Your task to perform on an android device: choose inbox layout in the gmail app Image 0: 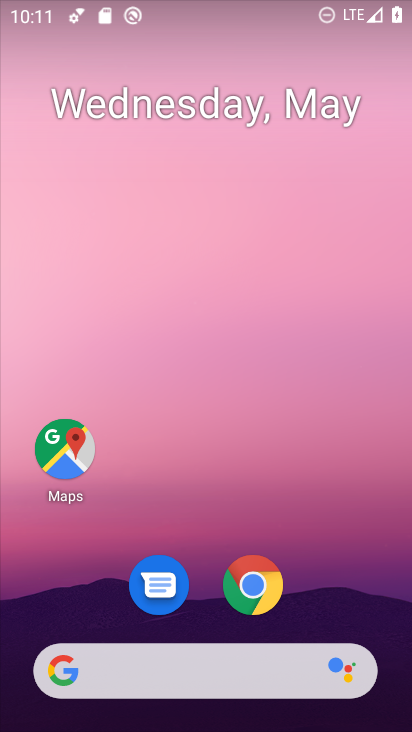
Step 0: drag from (298, 509) to (300, 70)
Your task to perform on an android device: choose inbox layout in the gmail app Image 1: 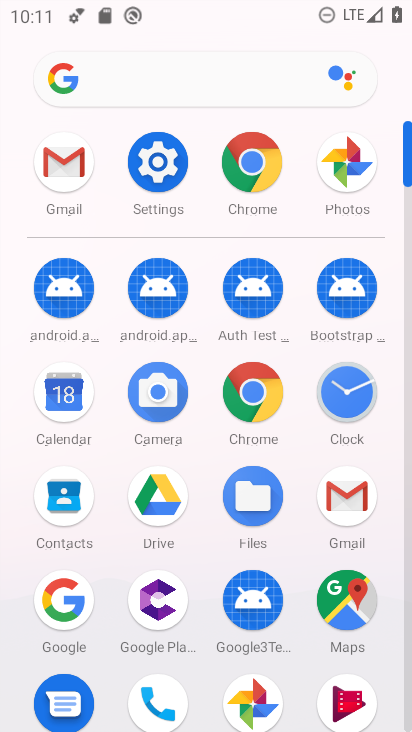
Step 1: click (161, 164)
Your task to perform on an android device: choose inbox layout in the gmail app Image 2: 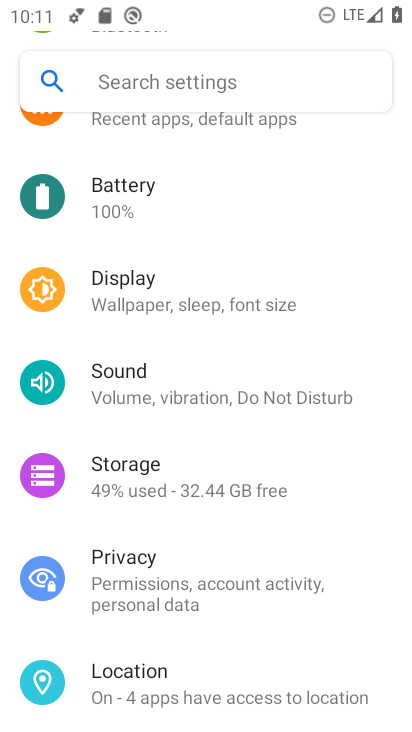
Step 2: drag from (214, 635) to (190, 114)
Your task to perform on an android device: choose inbox layout in the gmail app Image 3: 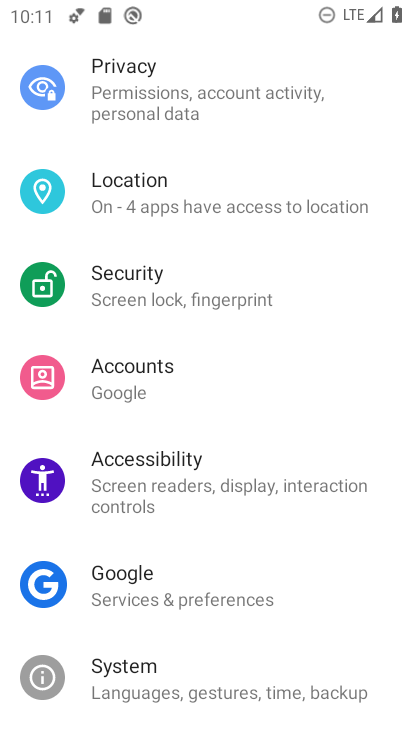
Step 3: drag from (194, 557) to (204, 264)
Your task to perform on an android device: choose inbox layout in the gmail app Image 4: 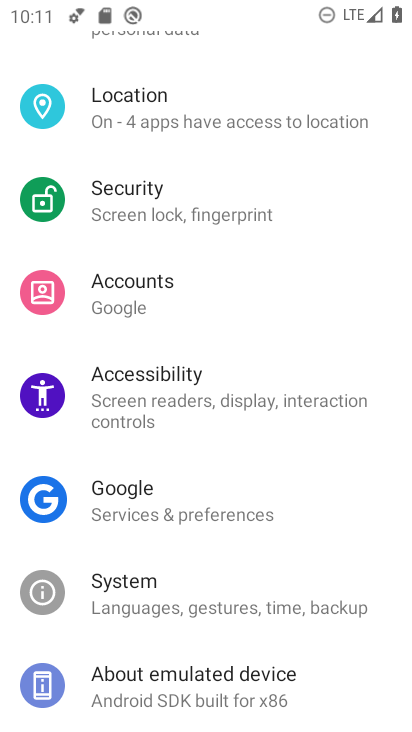
Step 4: press home button
Your task to perform on an android device: choose inbox layout in the gmail app Image 5: 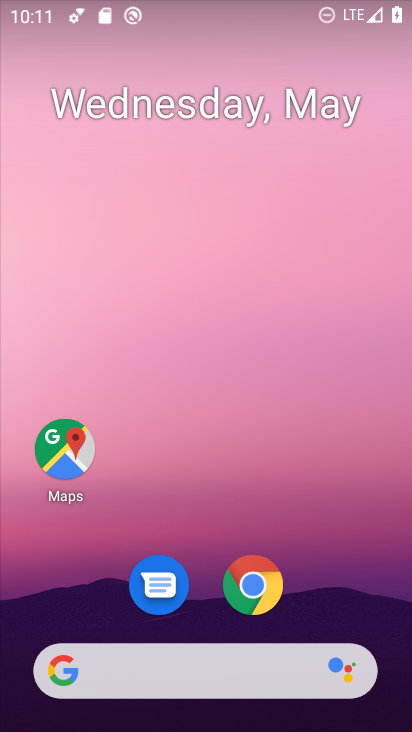
Step 5: drag from (306, 534) to (329, 90)
Your task to perform on an android device: choose inbox layout in the gmail app Image 6: 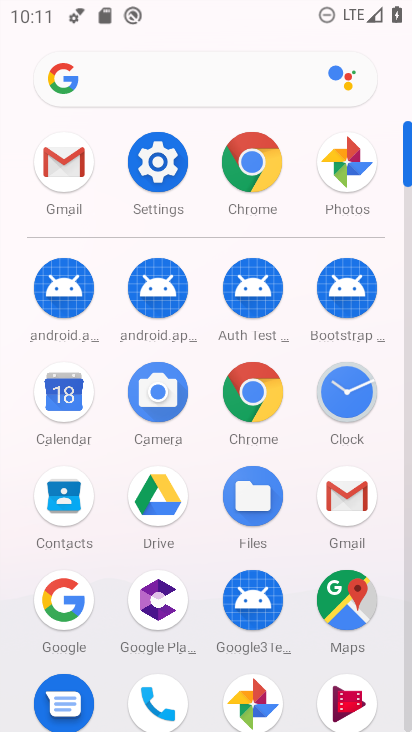
Step 6: click (340, 497)
Your task to perform on an android device: choose inbox layout in the gmail app Image 7: 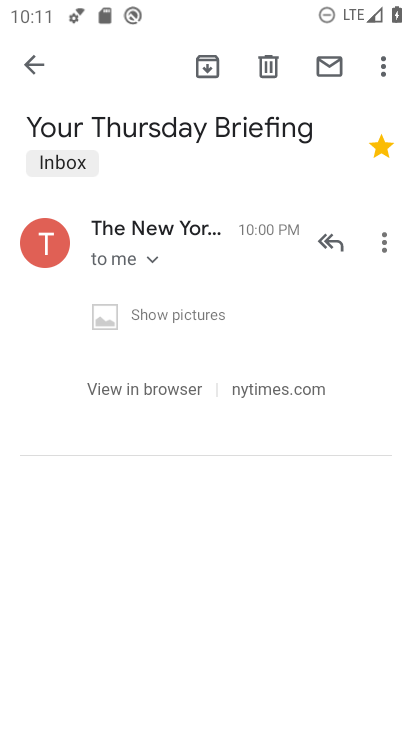
Step 7: click (27, 65)
Your task to perform on an android device: choose inbox layout in the gmail app Image 8: 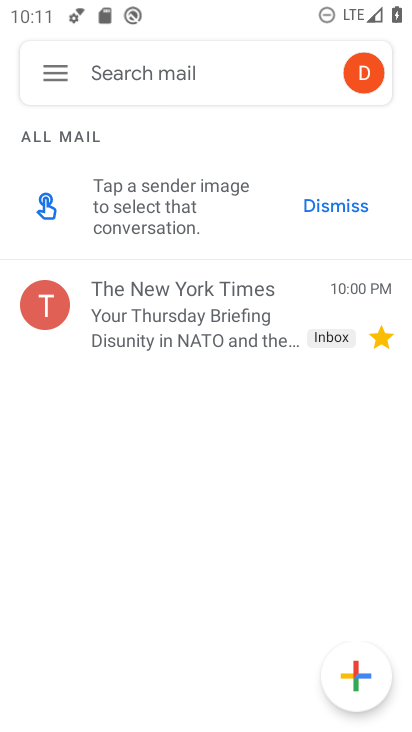
Step 8: click (58, 71)
Your task to perform on an android device: choose inbox layout in the gmail app Image 9: 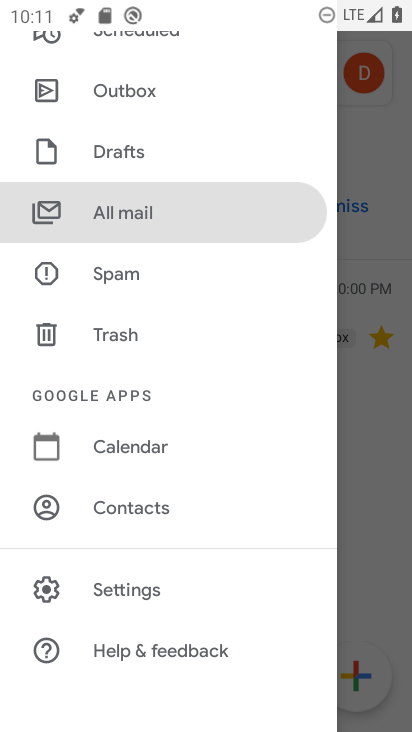
Step 9: click (171, 588)
Your task to perform on an android device: choose inbox layout in the gmail app Image 10: 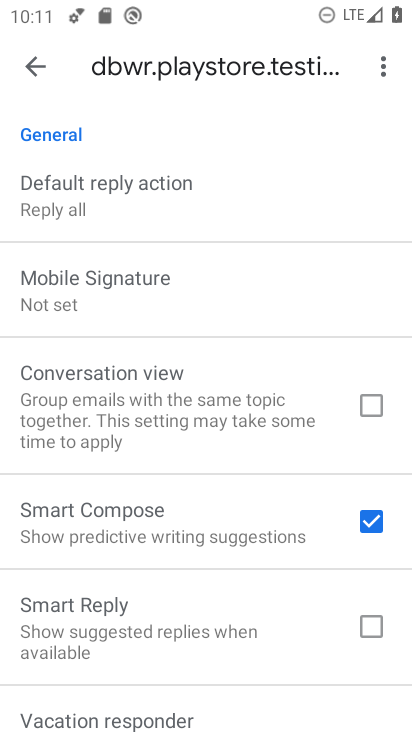
Step 10: drag from (192, 478) to (232, 541)
Your task to perform on an android device: choose inbox layout in the gmail app Image 11: 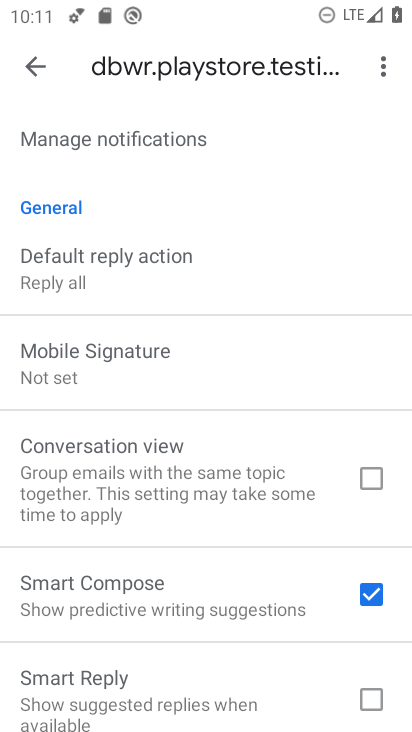
Step 11: drag from (193, 239) to (184, 571)
Your task to perform on an android device: choose inbox layout in the gmail app Image 12: 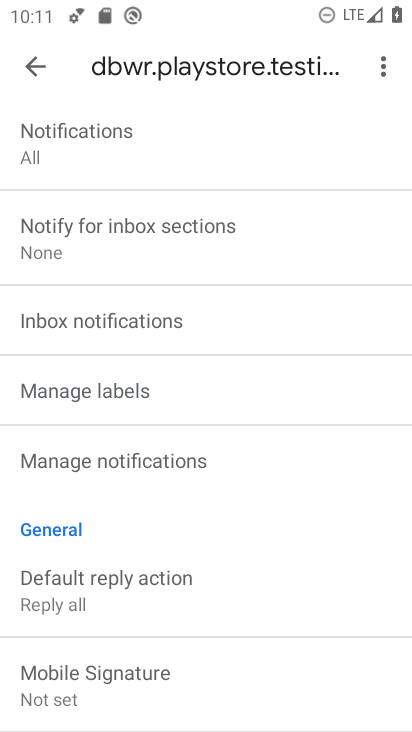
Step 12: drag from (187, 207) to (170, 554)
Your task to perform on an android device: choose inbox layout in the gmail app Image 13: 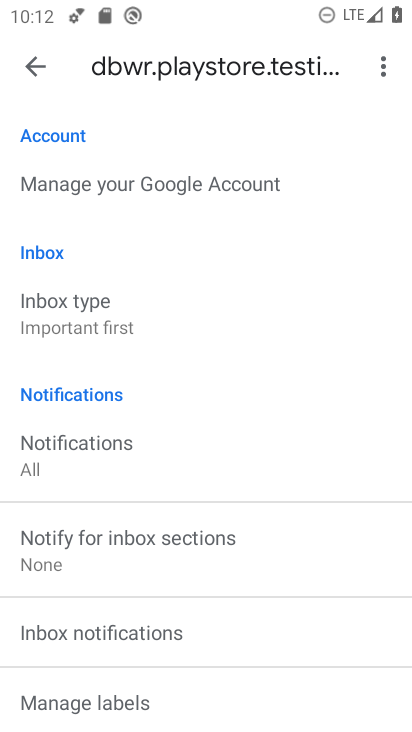
Step 13: drag from (161, 247) to (164, 517)
Your task to perform on an android device: choose inbox layout in the gmail app Image 14: 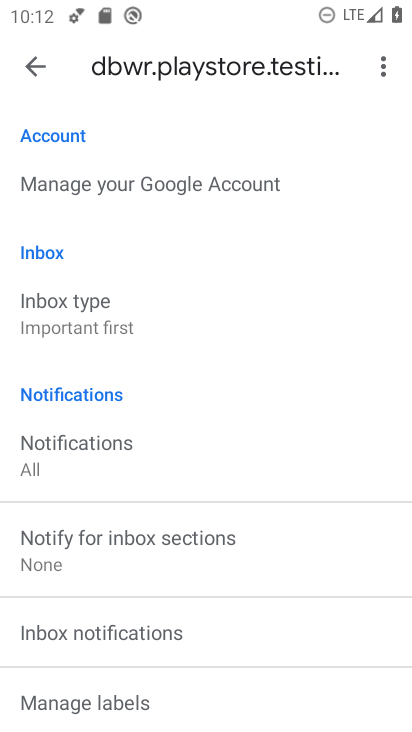
Step 14: click (91, 318)
Your task to perform on an android device: choose inbox layout in the gmail app Image 15: 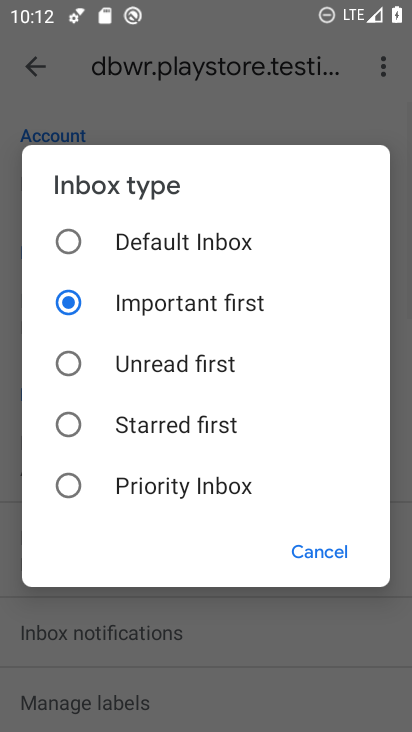
Step 15: click (83, 229)
Your task to perform on an android device: choose inbox layout in the gmail app Image 16: 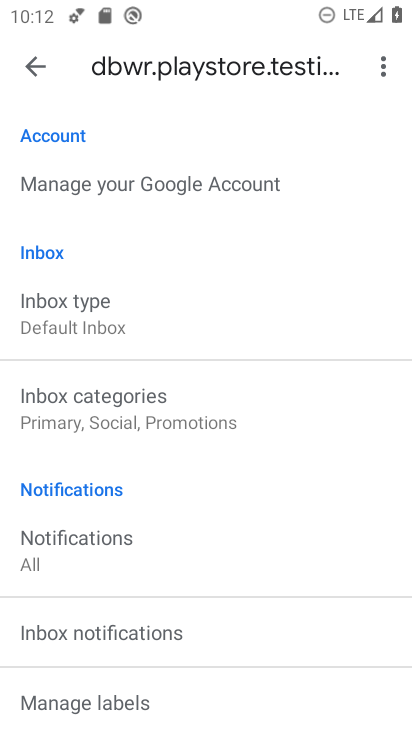
Step 16: task complete